Your task to perform on an android device: open app "Walmart Shopping & Grocery" (install if not already installed) and go to login screen Image 0: 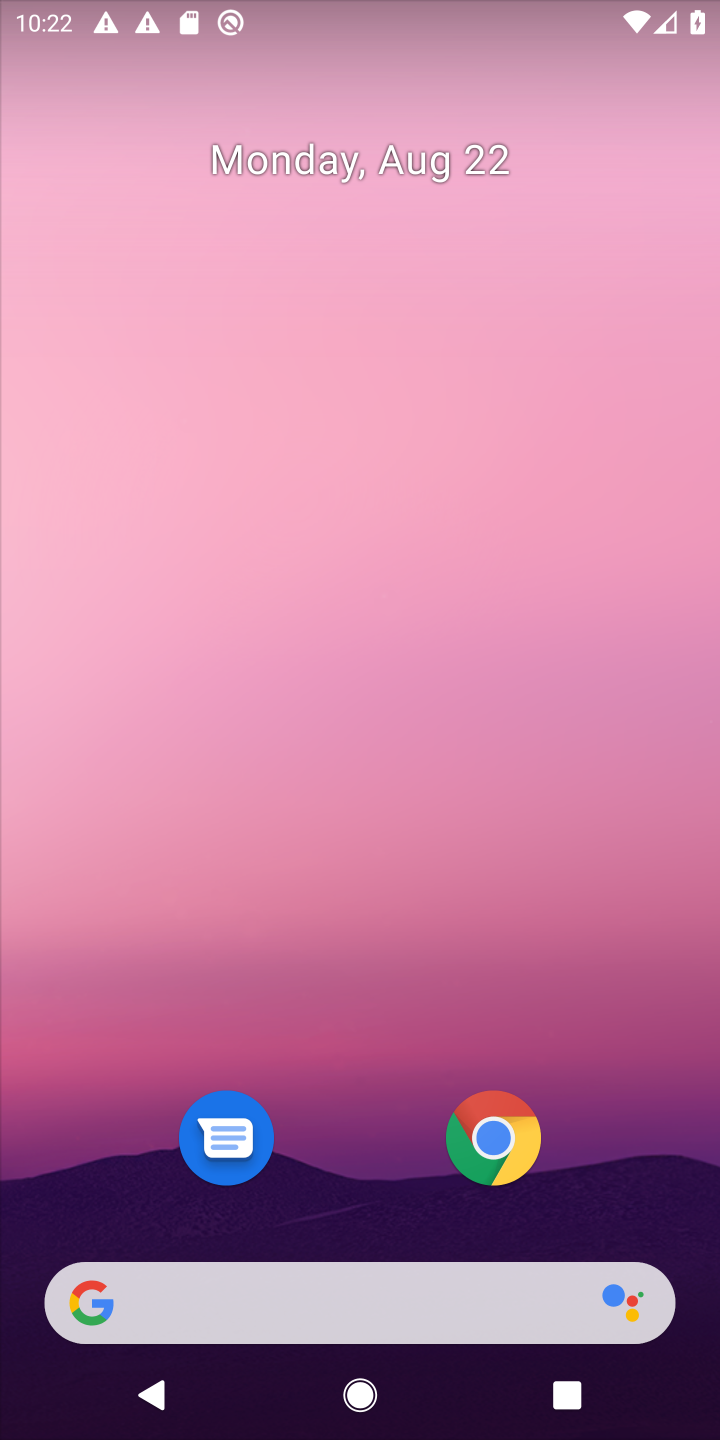
Step 0: press home button
Your task to perform on an android device: open app "Walmart Shopping & Grocery" (install if not already installed) and go to login screen Image 1: 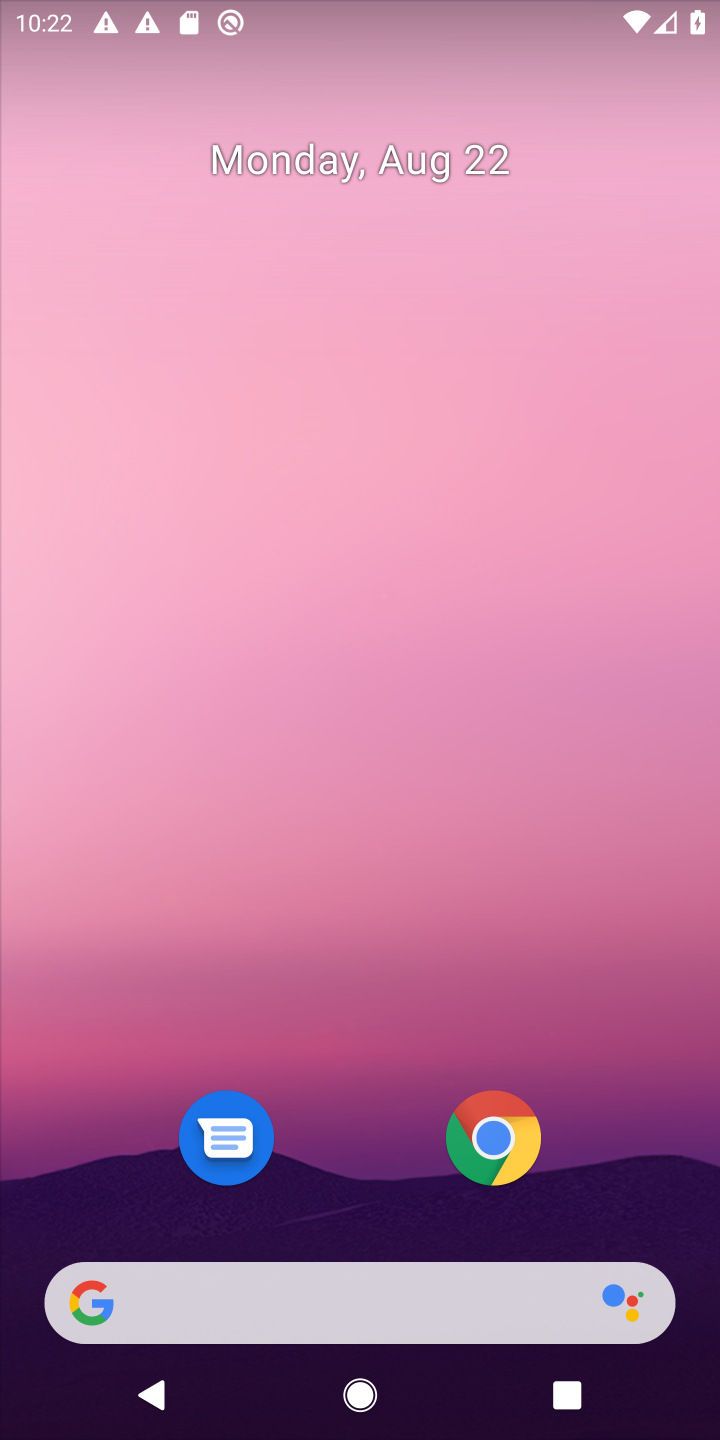
Step 1: drag from (635, 1128) to (617, 125)
Your task to perform on an android device: open app "Walmart Shopping & Grocery" (install if not already installed) and go to login screen Image 2: 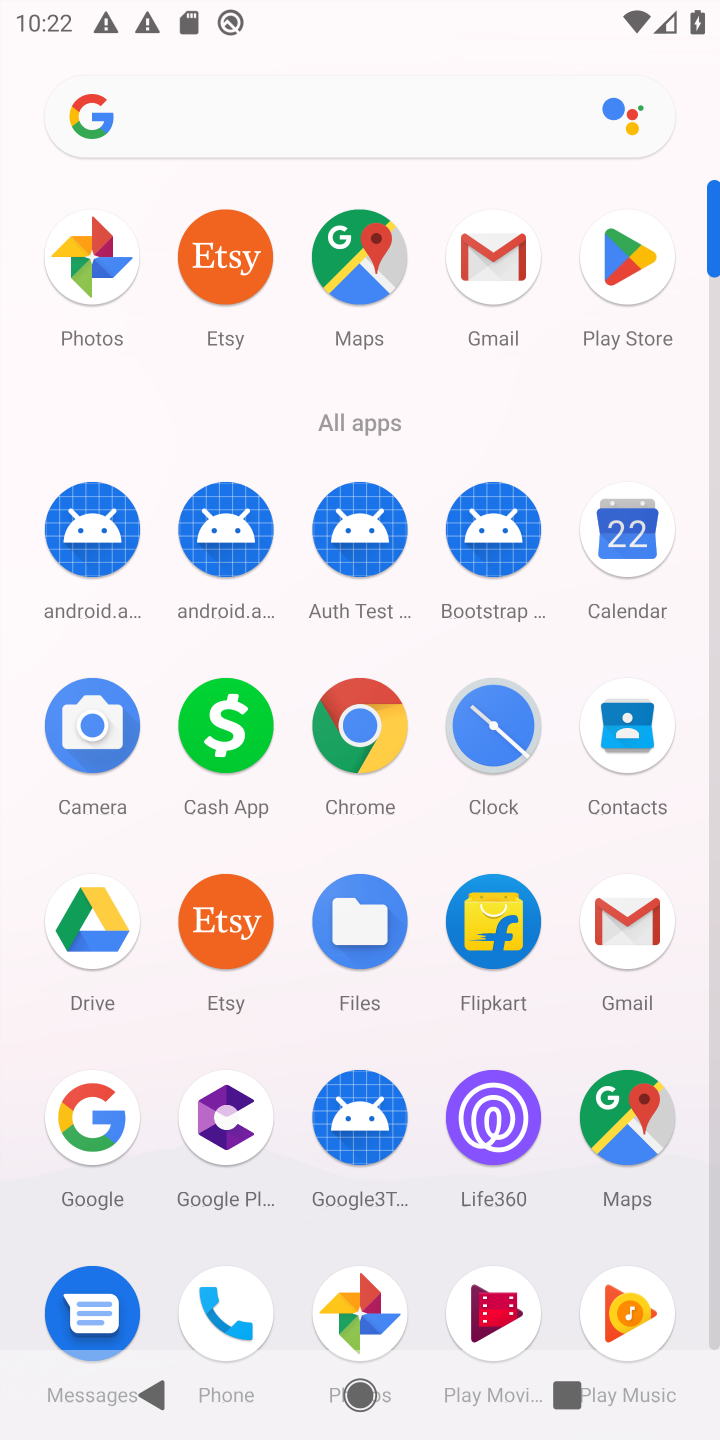
Step 2: click (633, 267)
Your task to perform on an android device: open app "Walmart Shopping & Grocery" (install if not already installed) and go to login screen Image 3: 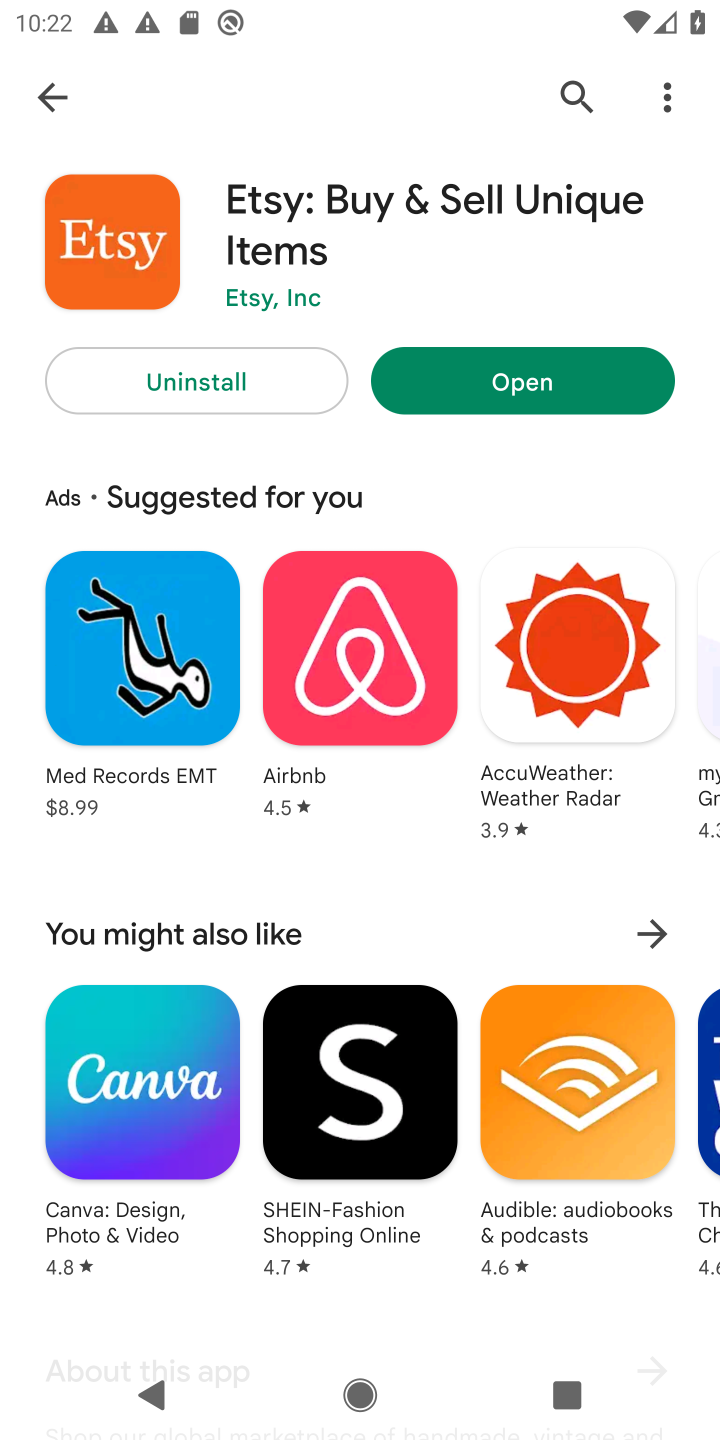
Step 3: press back button
Your task to perform on an android device: open app "Walmart Shopping & Grocery" (install if not already installed) and go to login screen Image 4: 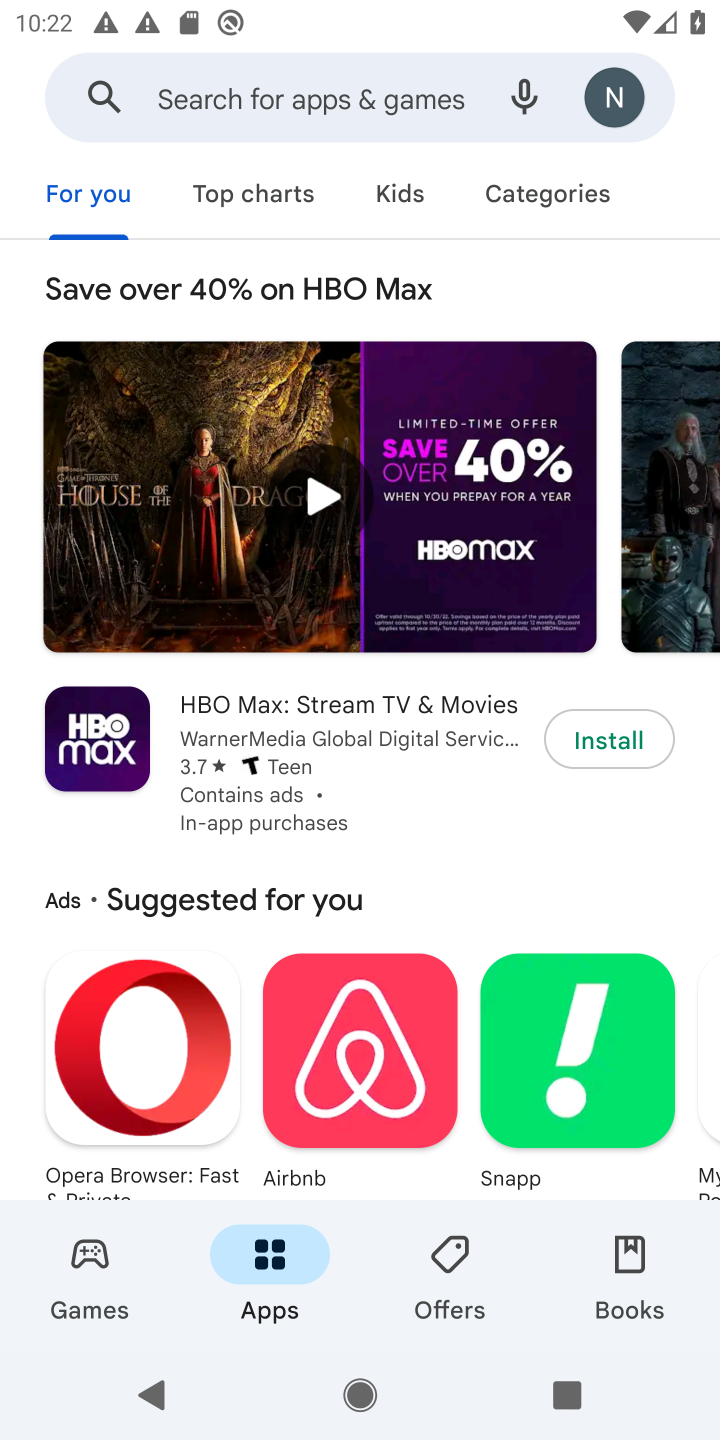
Step 4: click (288, 84)
Your task to perform on an android device: open app "Walmart Shopping & Grocery" (install if not already installed) and go to login screen Image 5: 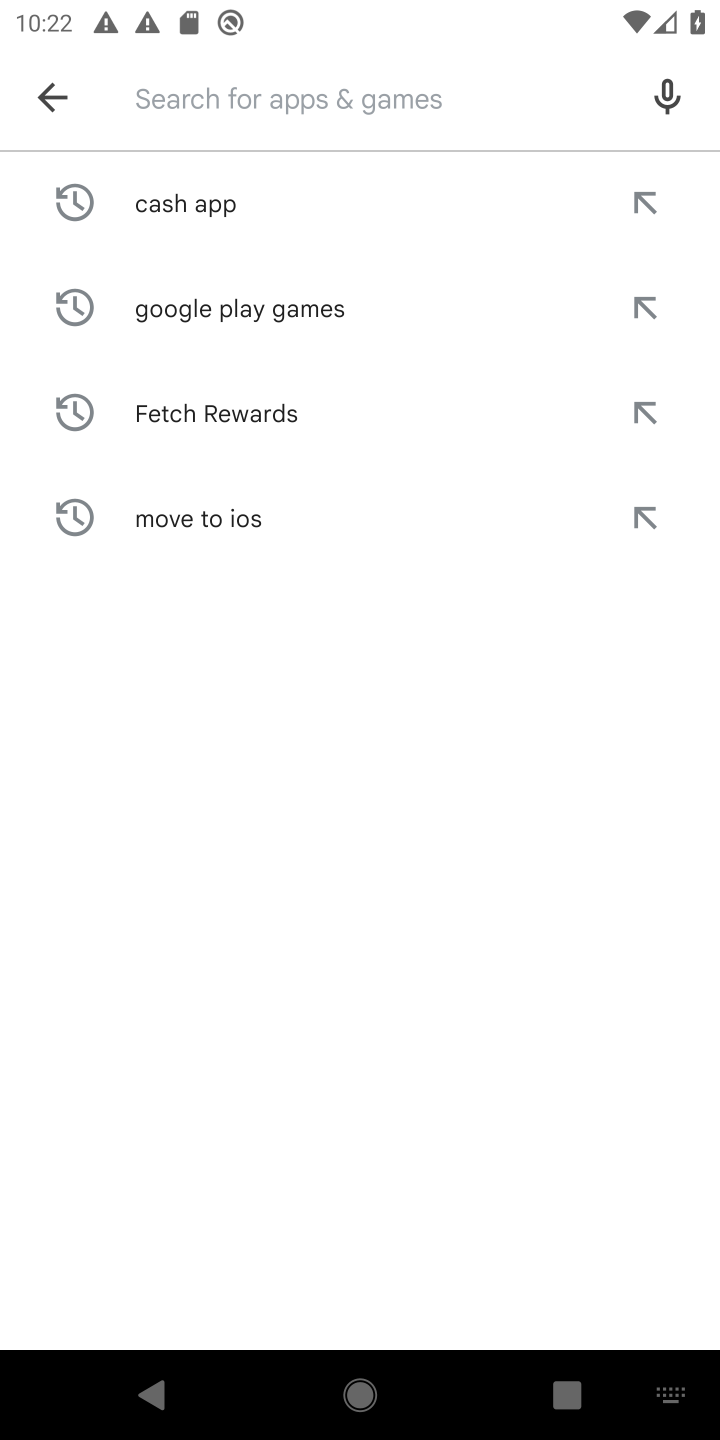
Step 5: type "Walmart Shopping & Grocery"
Your task to perform on an android device: open app "Walmart Shopping & Grocery" (install if not already installed) and go to login screen Image 6: 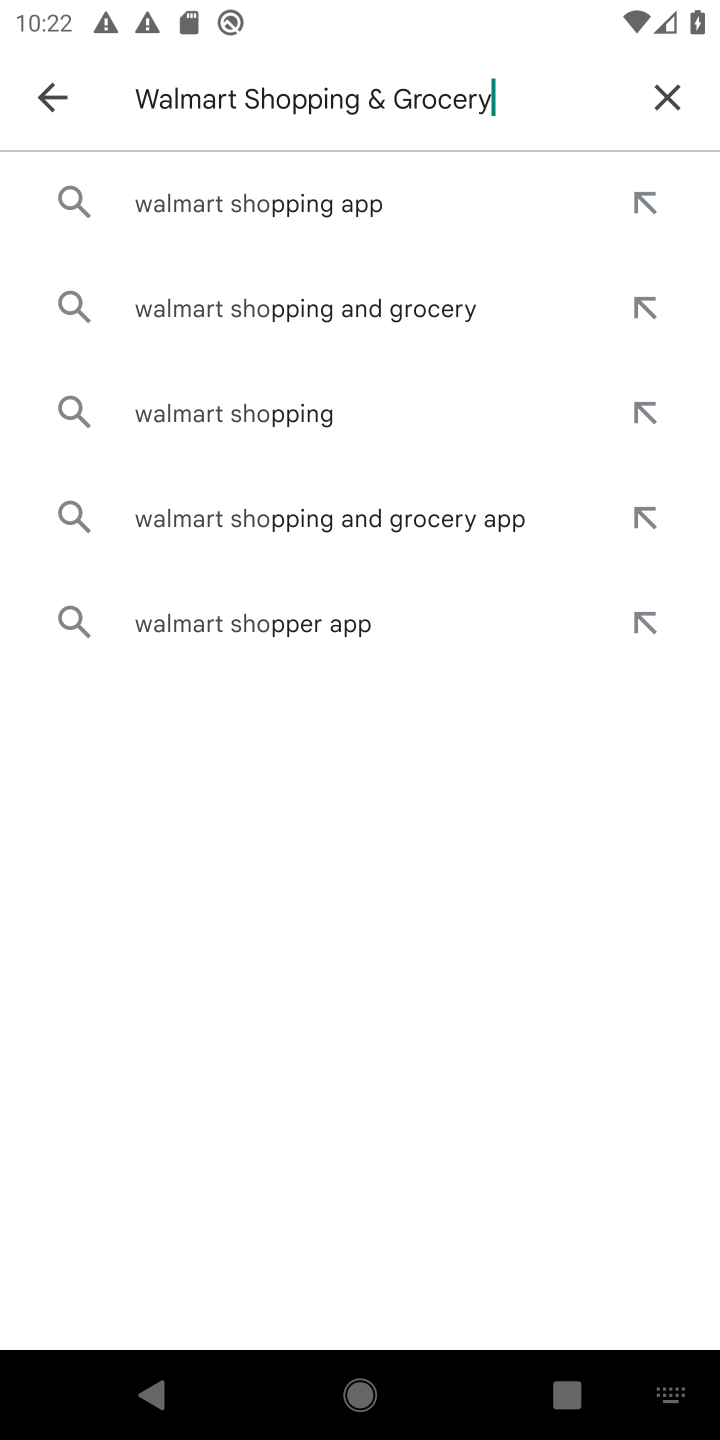
Step 6: press enter
Your task to perform on an android device: open app "Walmart Shopping & Grocery" (install if not already installed) and go to login screen Image 7: 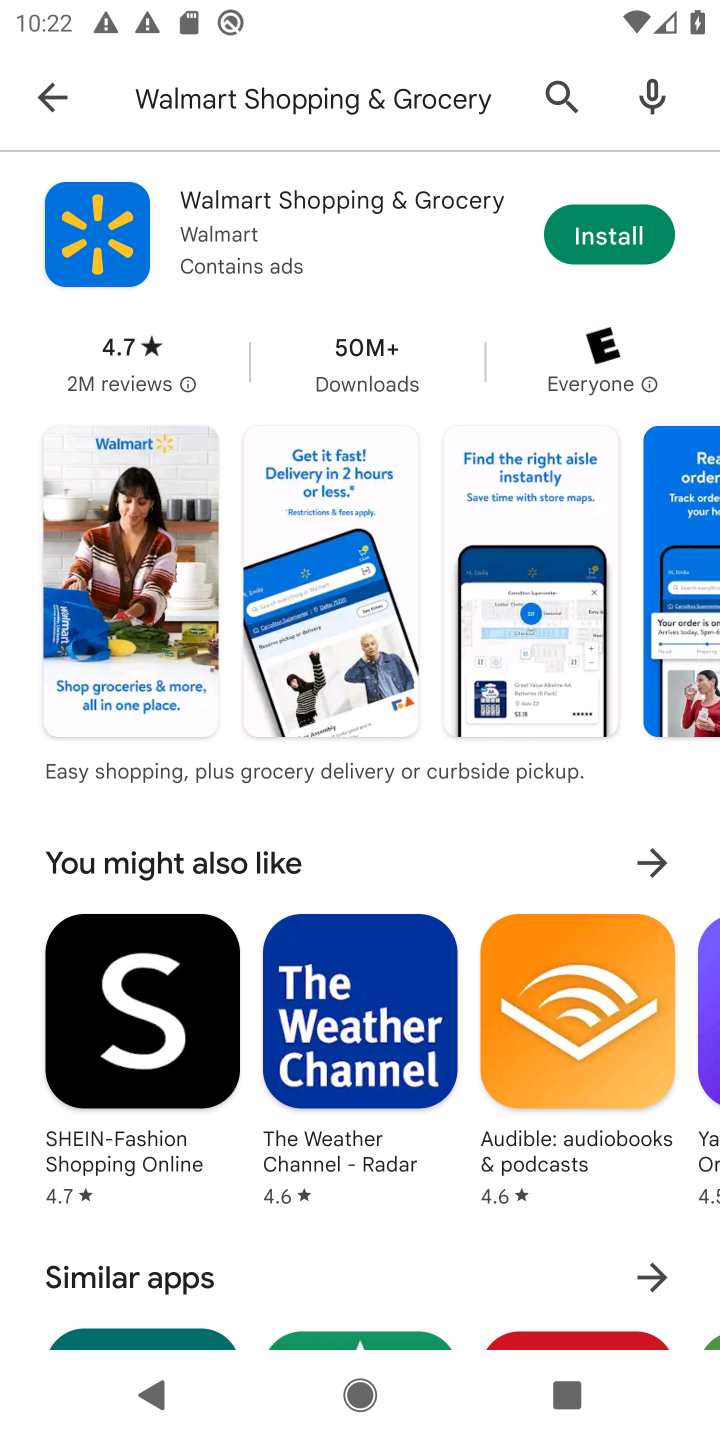
Step 7: click (590, 237)
Your task to perform on an android device: open app "Walmart Shopping & Grocery" (install if not already installed) and go to login screen Image 8: 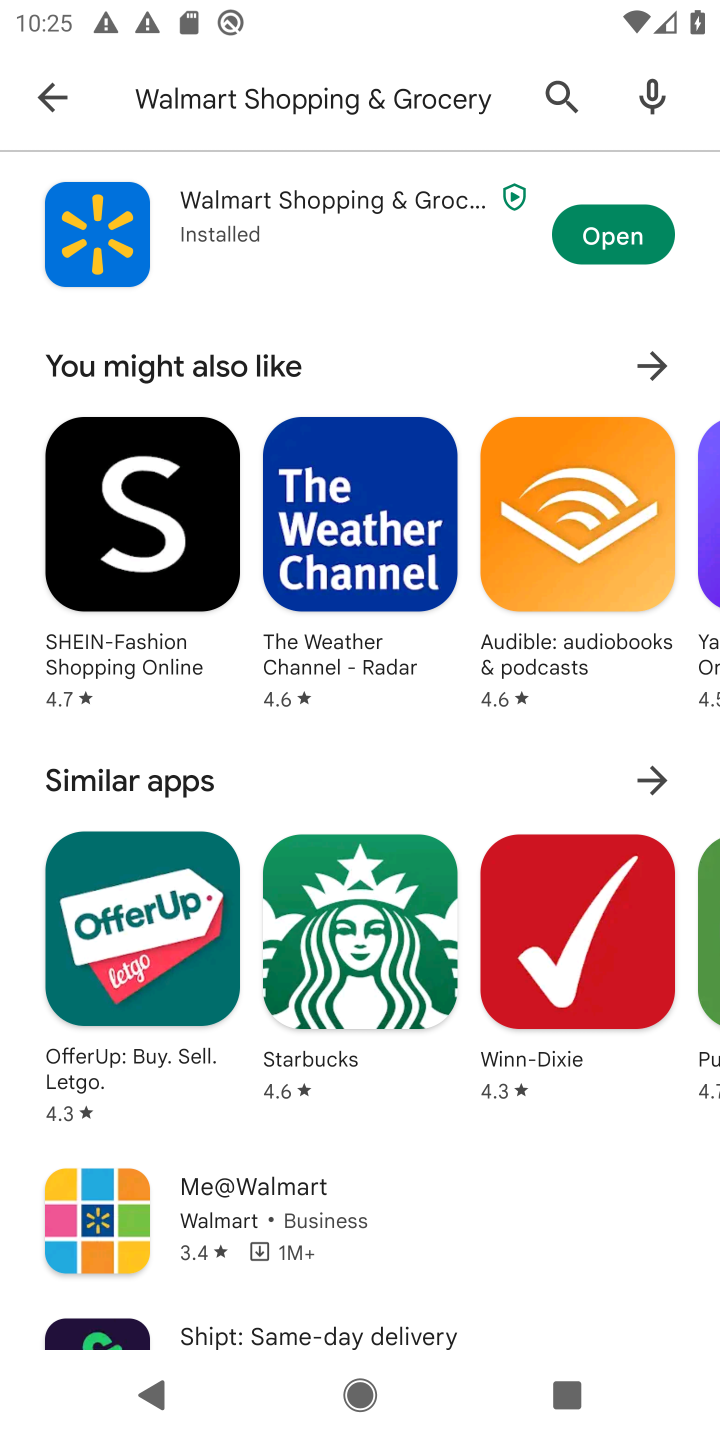
Step 8: click (617, 250)
Your task to perform on an android device: open app "Walmart Shopping & Grocery" (install if not already installed) and go to login screen Image 9: 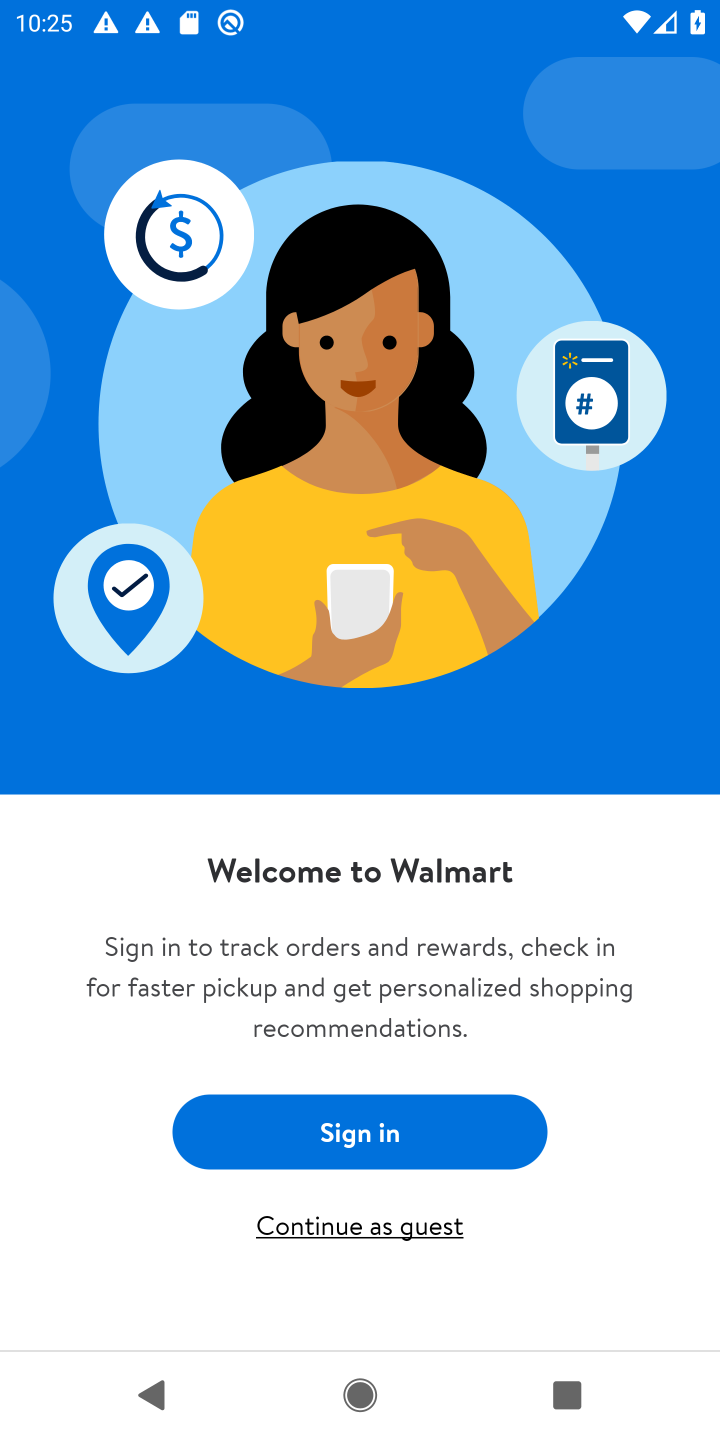
Step 9: task complete